Your task to perform on an android device: set the stopwatch Image 0: 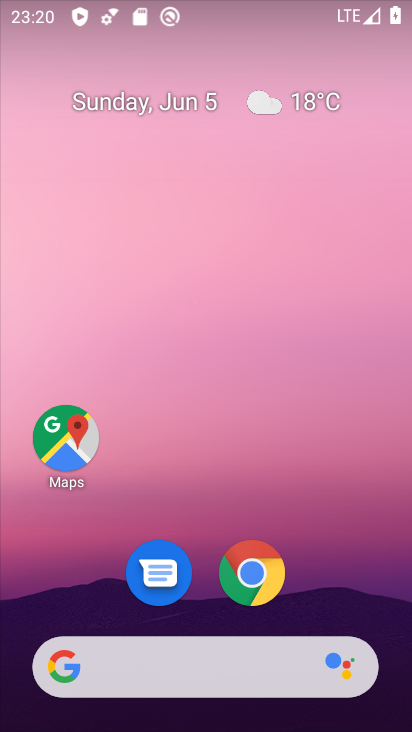
Step 0: drag from (203, 642) to (12, 140)
Your task to perform on an android device: set the stopwatch Image 1: 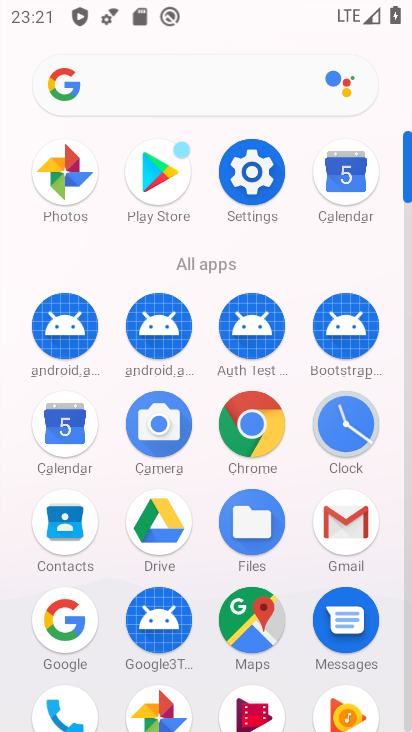
Step 1: click (337, 416)
Your task to perform on an android device: set the stopwatch Image 2: 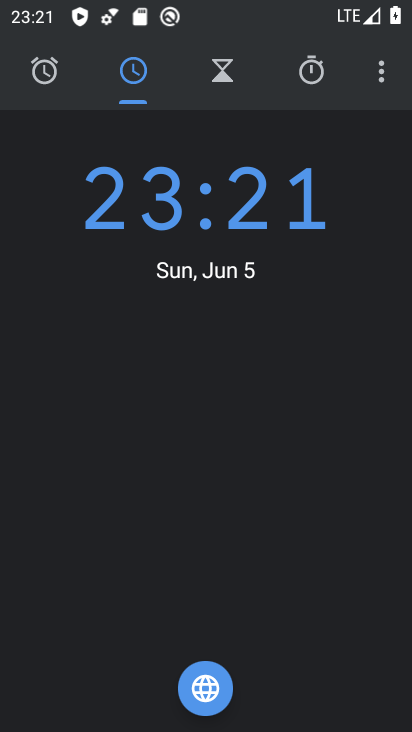
Step 2: click (319, 72)
Your task to perform on an android device: set the stopwatch Image 3: 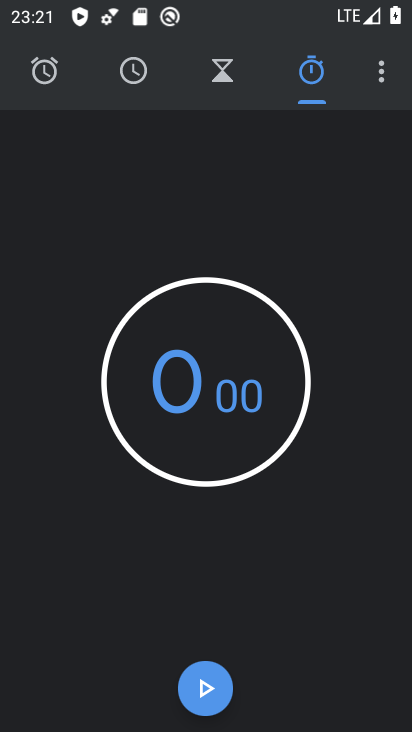
Step 3: click (208, 694)
Your task to perform on an android device: set the stopwatch Image 4: 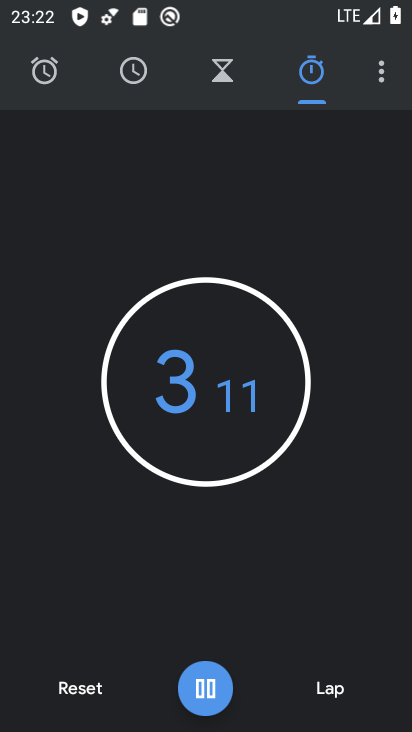
Step 4: click (208, 694)
Your task to perform on an android device: set the stopwatch Image 5: 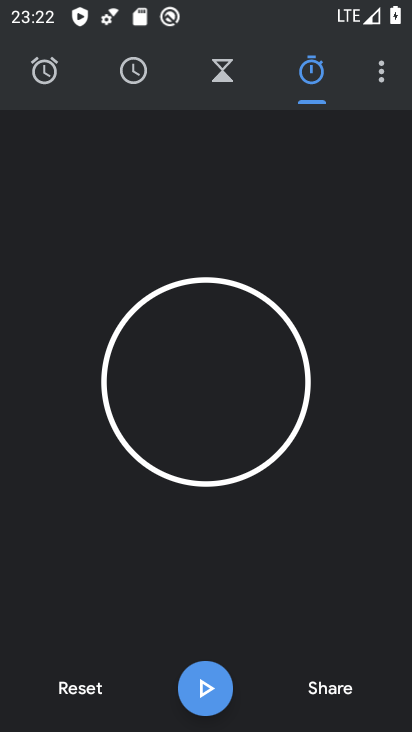
Step 5: task complete